Your task to perform on an android device: change the clock display to analog Image 0: 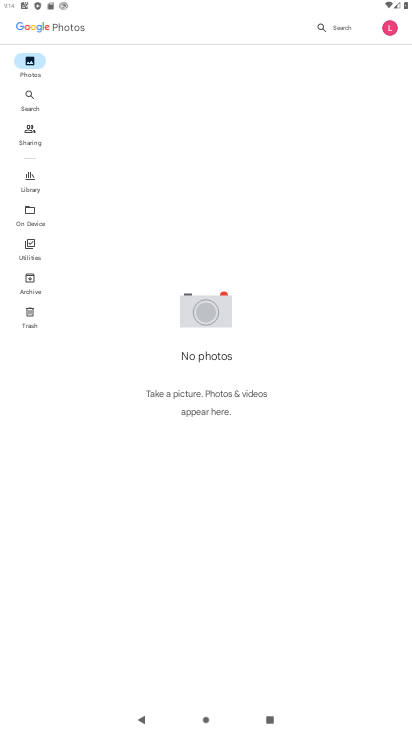
Step 0: task complete